Your task to perform on an android device: Go to CNN.com Image 0: 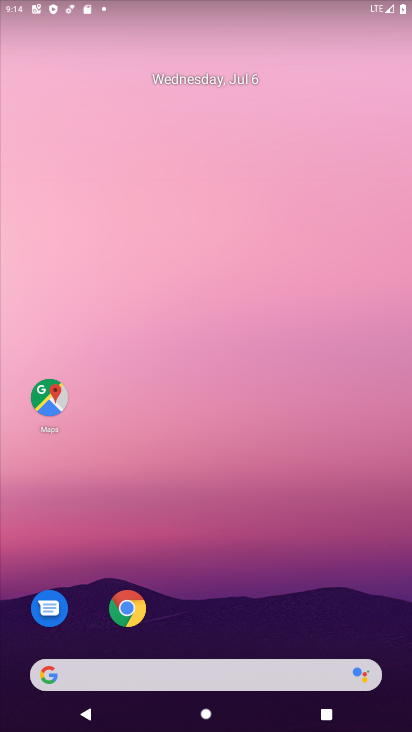
Step 0: click (124, 605)
Your task to perform on an android device: Go to CNN.com Image 1: 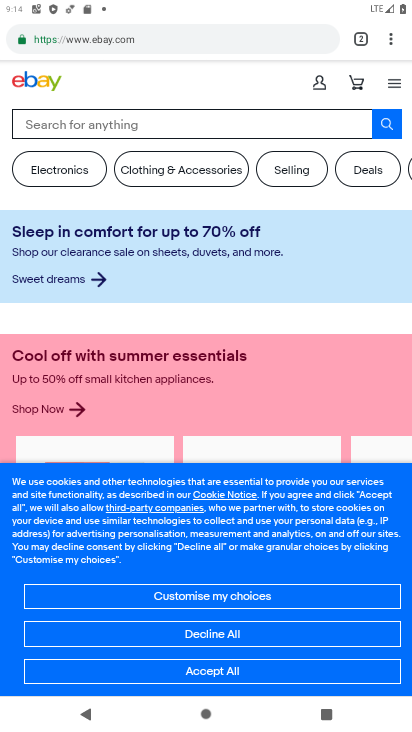
Step 1: click (390, 35)
Your task to perform on an android device: Go to CNN.com Image 2: 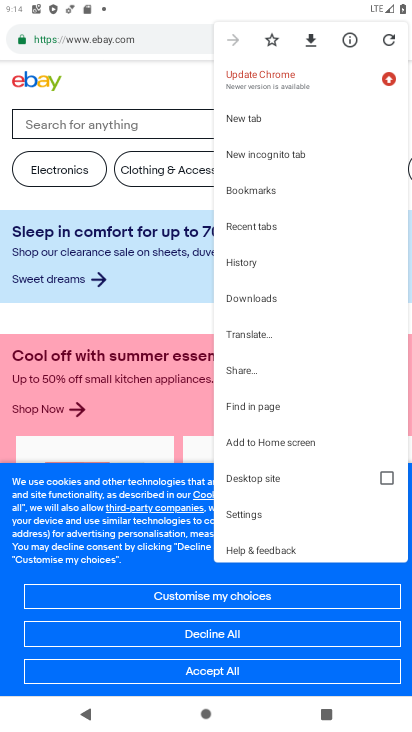
Step 2: click (236, 110)
Your task to perform on an android device: Go to CNN.com Image 3: 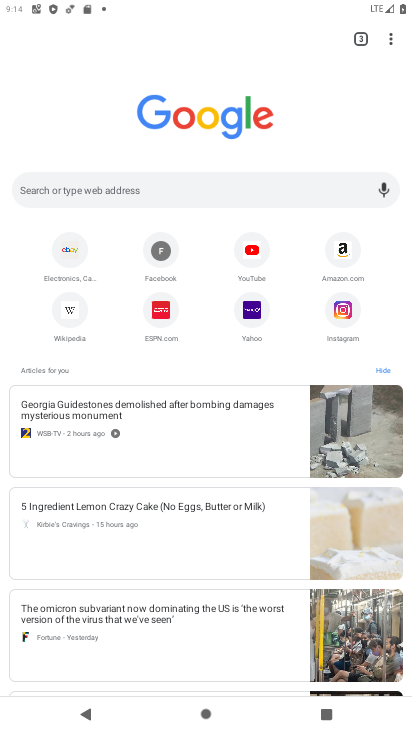
Step 3: click (139, 180)
Your task to perform on an android device: Go to CNN.com Image 4: 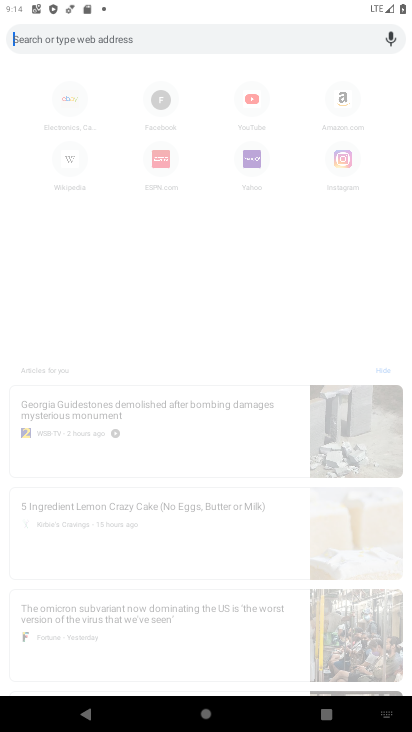
Step 4: type "cnn.com"
Your task to perform on an android device: Go to CNN.com Image 5: 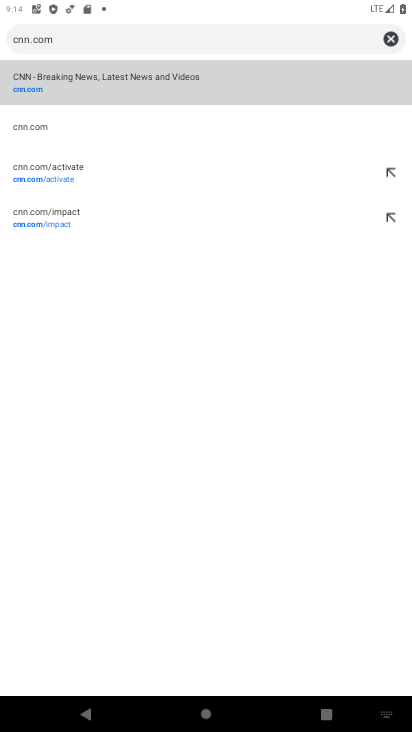
Step 5: click (45, 126)
Your task to perform on an android device: Go to CNN.com Image 6: 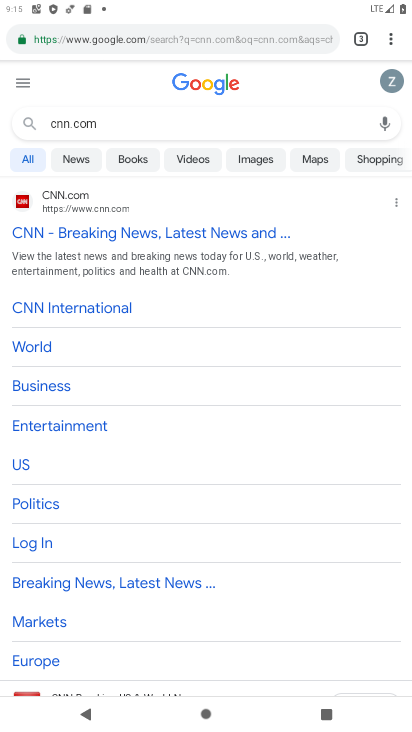
Step 6: task complete